Your task to perform on an android device: Show me the alarms in the clock app Image 0: 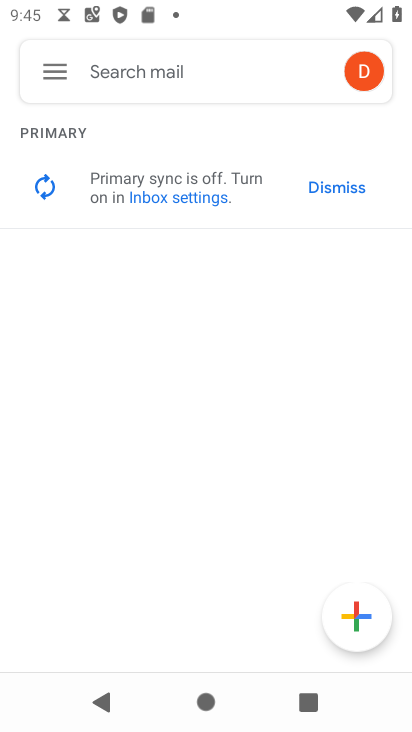
Step 0: press home button
Your task to perform on an android device: Show me the alarms in the clock app Image 1: 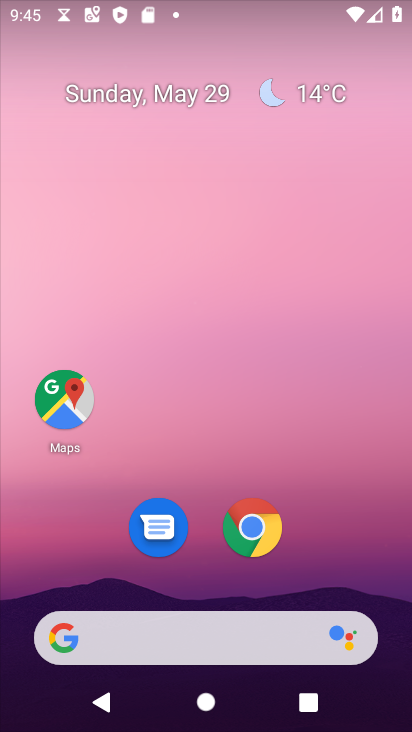
Step 1: drag from (147, 636) to (234, 108)
Your task to perform on an android device: Show me the alarms in the clock app Image 2: 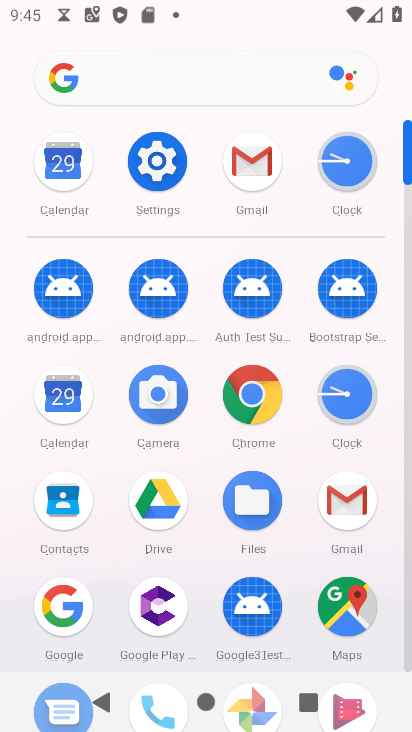
Step 2: click (346, 409)
Your task to perform on an android device: Show me the alarms in the clock app Image 3: 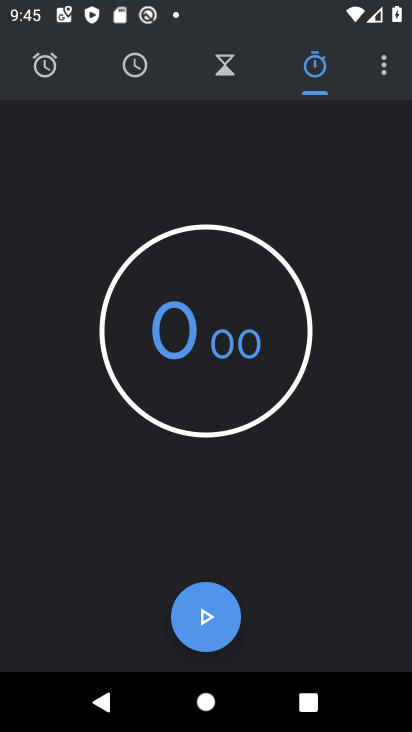
Step 3: click (41, 74)
Your task to perform on an android device: Show me the alarms in the clock app Image 4: 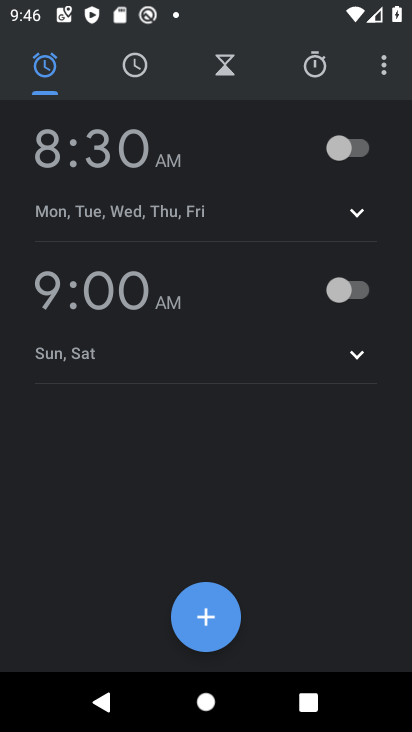
Step 4: task complete